Your task to perform on an android device: toggle data saver in the chrome app Image 0: 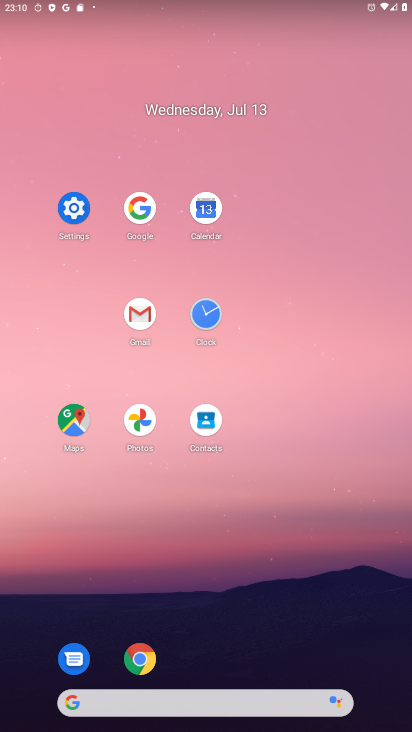
Step 0: click (141, 665)
Your task to perform on an android device: toggle data saver in the chrome app Image 1: 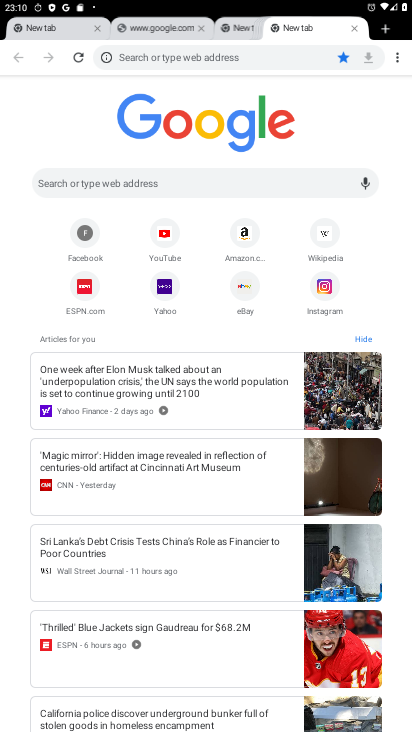
Step 1: click (401, 50)
Your task to perform on an android device: toggle data saver in the chrome app Image 2: 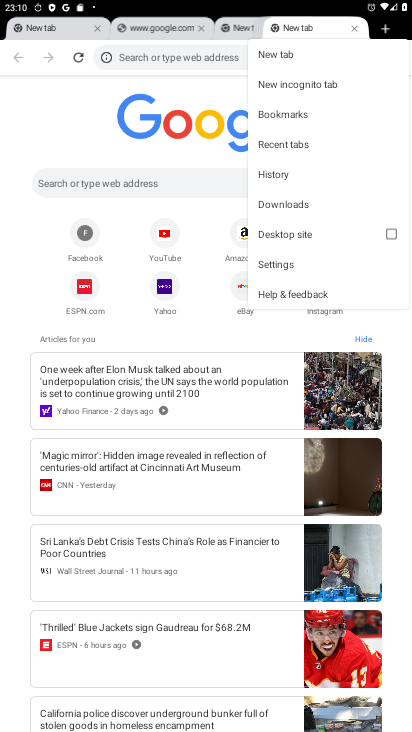
Step 2: click (279, 267)
Your task to perform on an android device: toggle data saver in the chrome app Image 3: 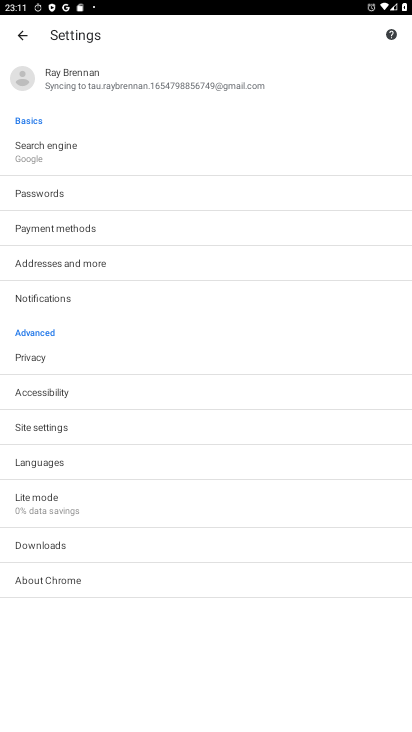
Step 3: click (122, 497)
Your task to perform on an android device: toggle data saver in the chrome app Image 4: 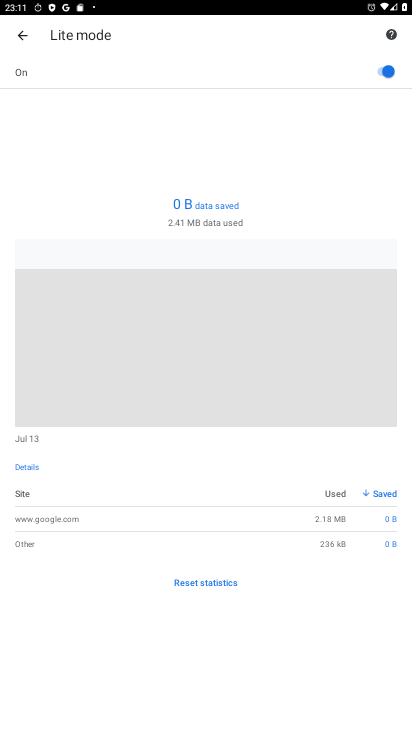
Step 4: task complete